Your task to perform on an android device: Turn off the flashlight Image 0: 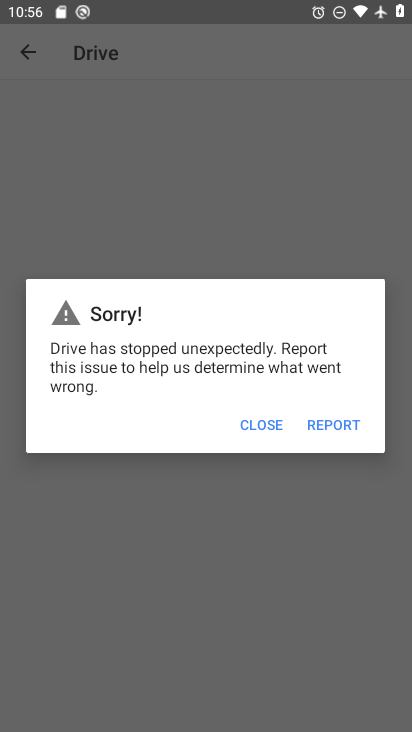
Step 0: press home button
Your task to perform on an android device: Turn off the flashlight Image 1: 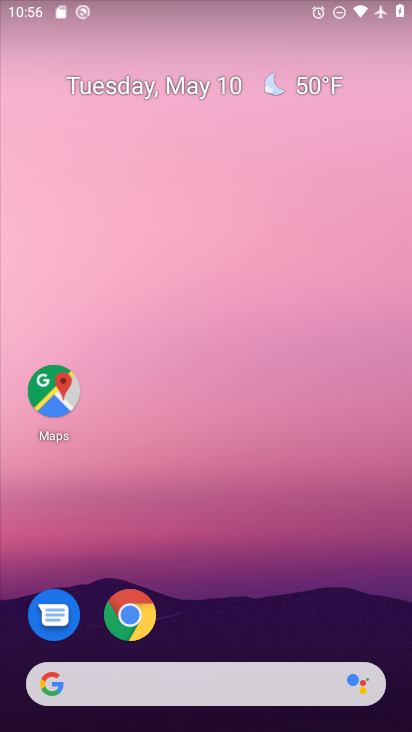
Step 1: drag from (202, 21) to (180, 565)
Your task to perform on an android device: Turn off the flashlight Image 2: 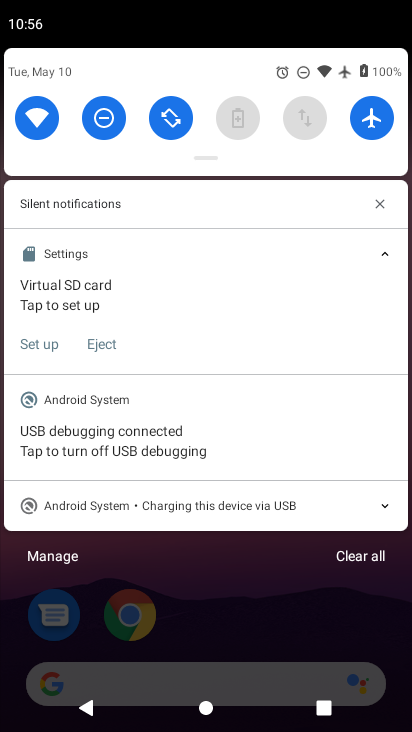
Step 2: drag from (208, 147) to (228, 452)
Your task to perform on an android device: Turn off the flashlight Image 3: 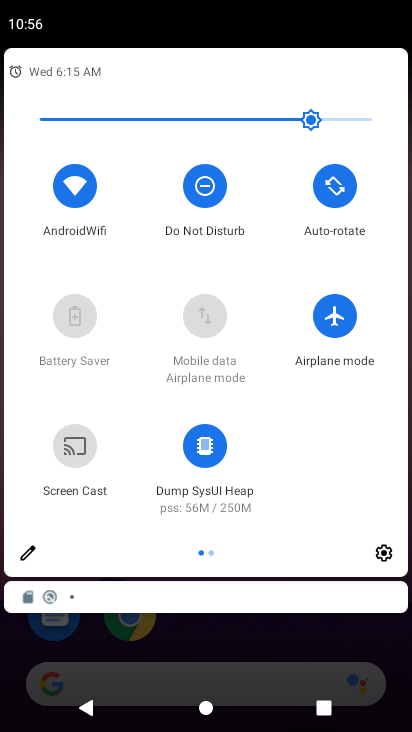
Step 3: click (21, 554)
Your task to perform on an android device: Turn off the flashlight Image 4: 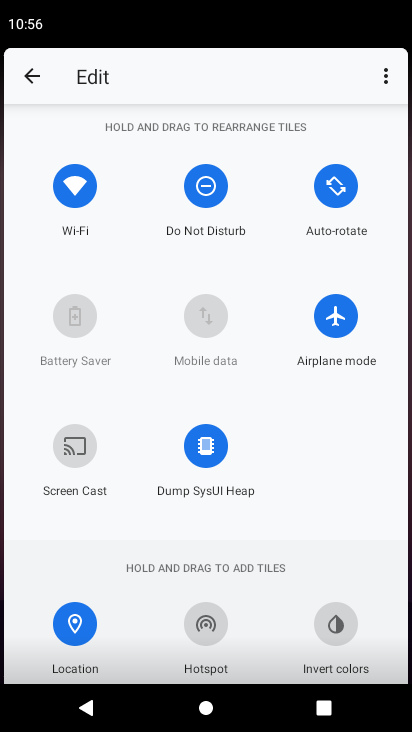
Step 4: task complete